Your task to perform on an android device: turn on location history Image 0: 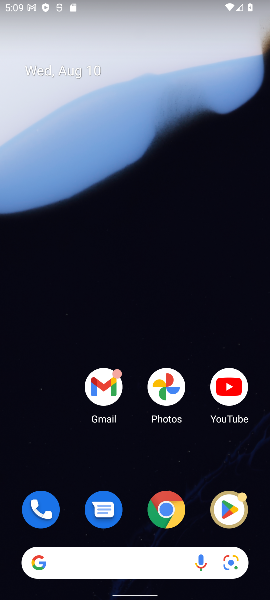
Step 0: drag from (139, 455) to (235, 31)
Your task to perform on an android device: turn on location history Image 1: 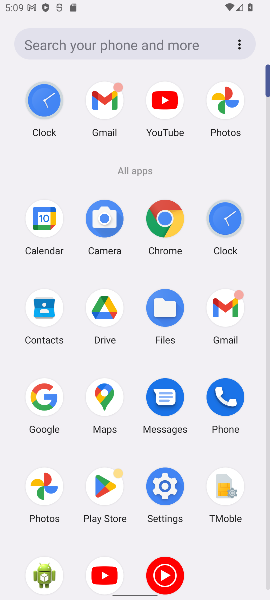
Step 1: click (174, 491)
Your task to perform on an android device: turn on location history Image 2: 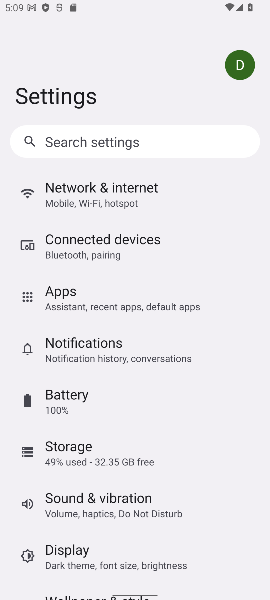
Step 2: drag from (148, 497) to (193, 190)
Your task to perform on an android device: turn on location history Image 3: 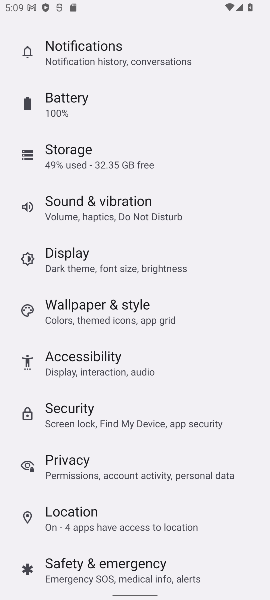
Step 3: click (82, 519)
Your task to perform on an android device: turn on location history Image 4: 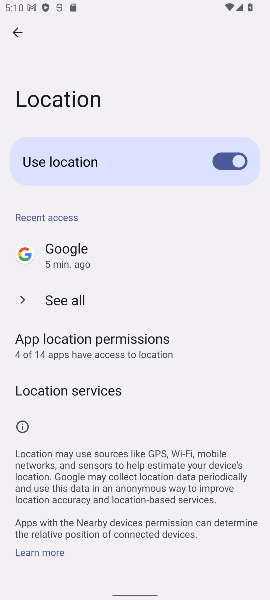
Step 4: click (101, 395)
Your task to perform on an android device: turn on location history Image 5: 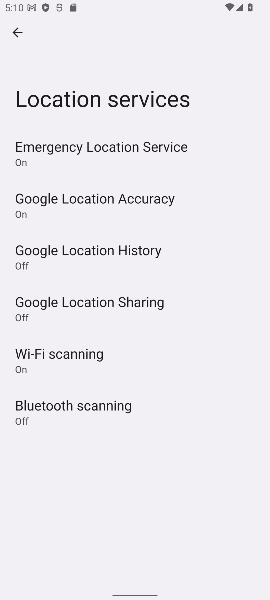
Step 5: click (116, 246)
Your task to perform on an android device: turn on location history Image 6: 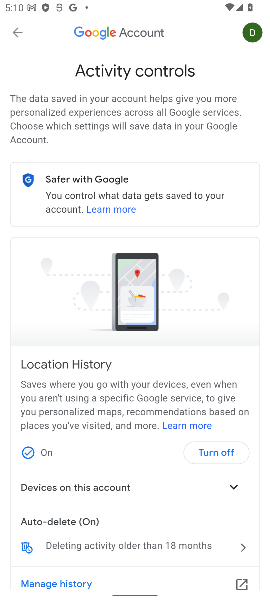
Step 6: task complete